Your task to perform on an android device: toggle priority inbox in the gmail app Image 0: 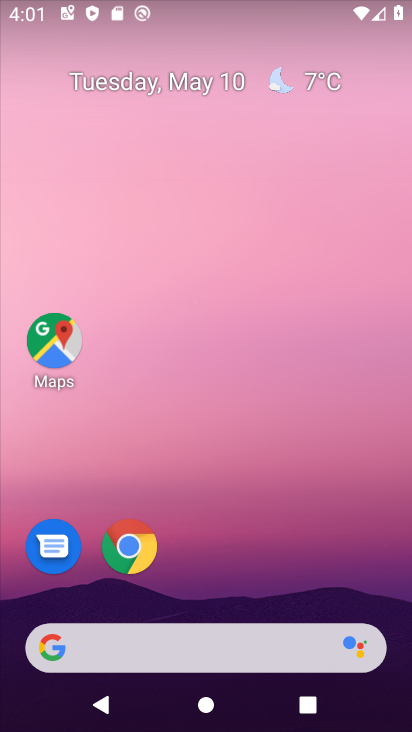
Step 0: drag from (257, 625) to (118, 289)
Your task to perform on an android device: toggle priority inbox in the gmail app Image 1: 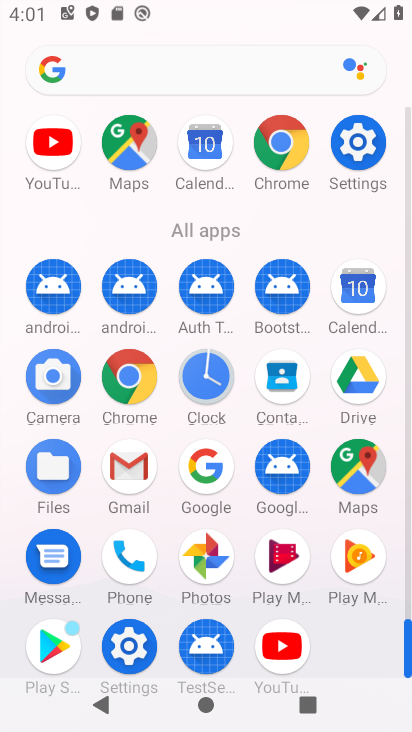
Step 1: click (131, 465)
Your task to perform on an android device: toggle priority inbox in the gmail app Image 2: 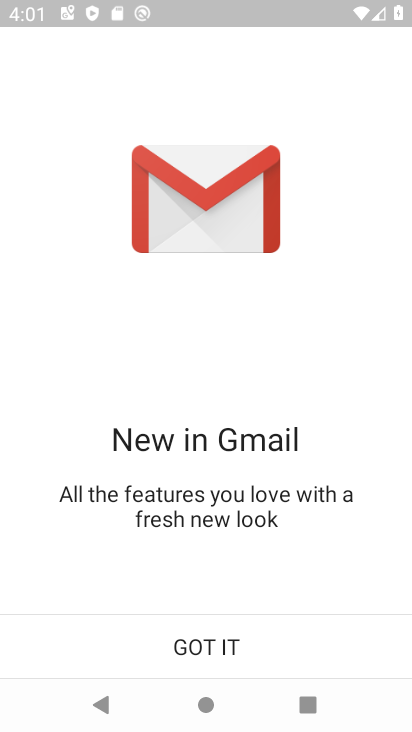
Step 2: click (214, 640)
Your task to perform on an android device: toggle priority inbox in the gmail app Image 3: 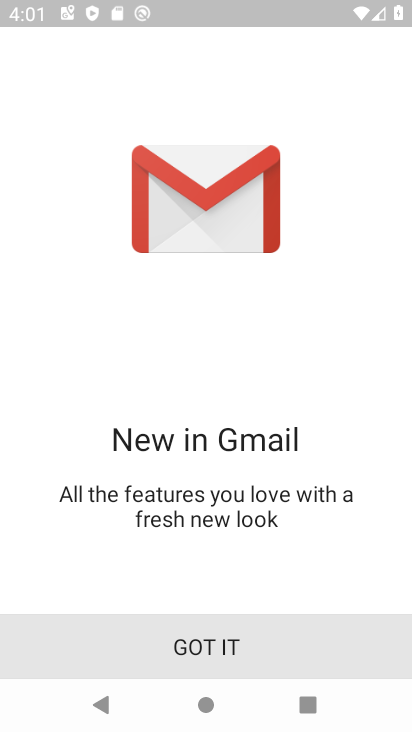
Step 3: click (213, 643)
Your task to perform on an android device: toggle priority inbox in the gmail app Image 4: 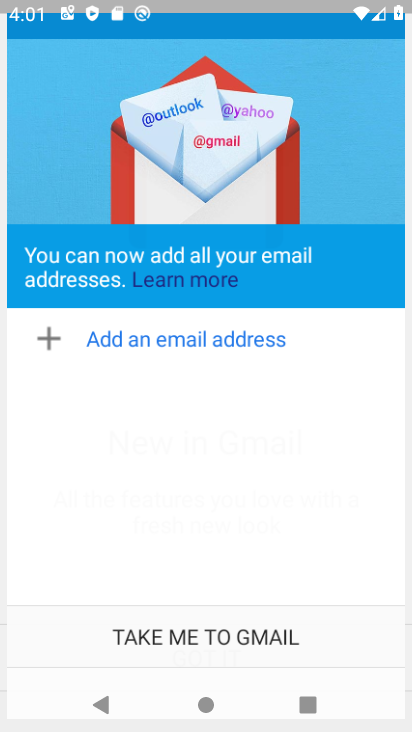
Step 4: click (213, 643)
Your task to perform on an android device: toggle priority inbox in the gmail app Image 5: 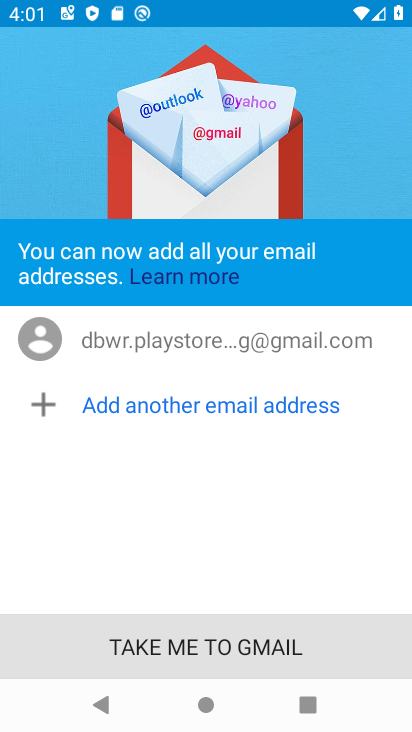
Step 5: click (213, 638)
Your task to perform on an android device: toggle priority inbox in the gmail app Image 6: 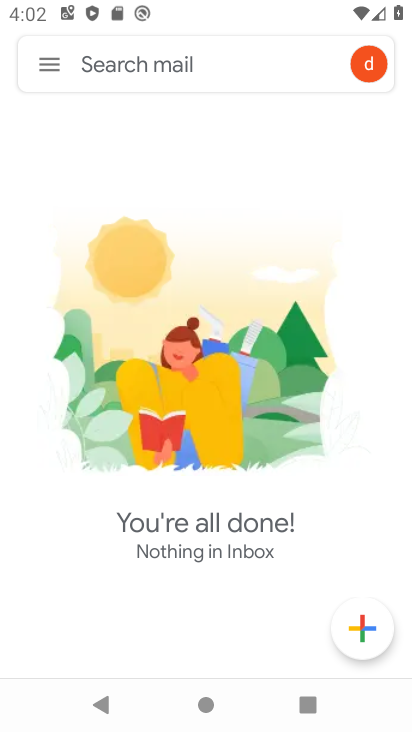
Step 6: click (82, 53)
Your task to perform on an android device: toggle priority inbox in the gmail app Image 7: 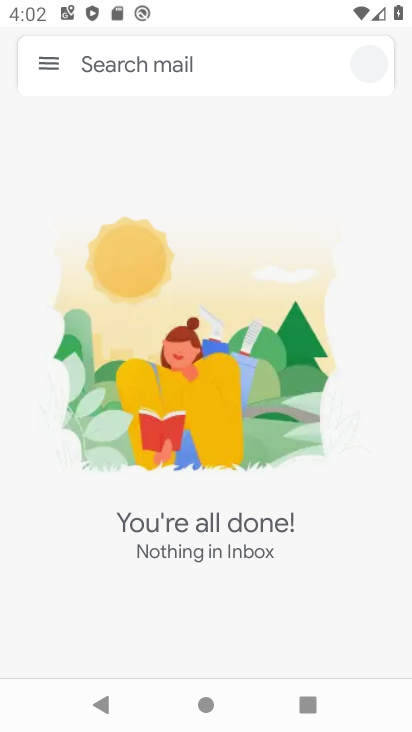
Step 7: click (82, 52)
Your task to perform on an android device: toggle priority inbox in the gmail app Image 8: 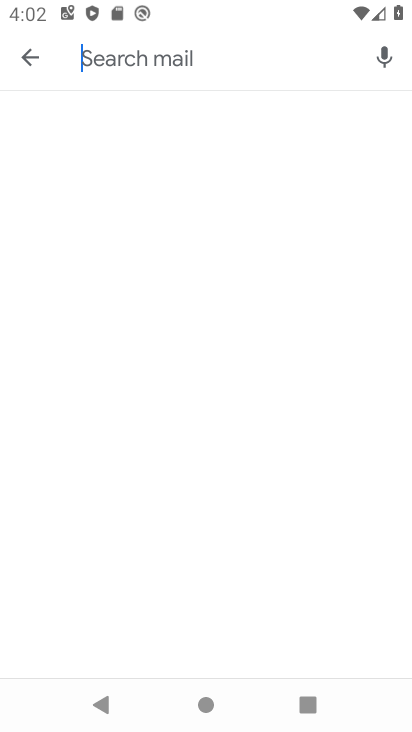
Step 8: click (82, 52)
Your task to perform on an android device: toggle priority inbox in the gmail app Image 9: 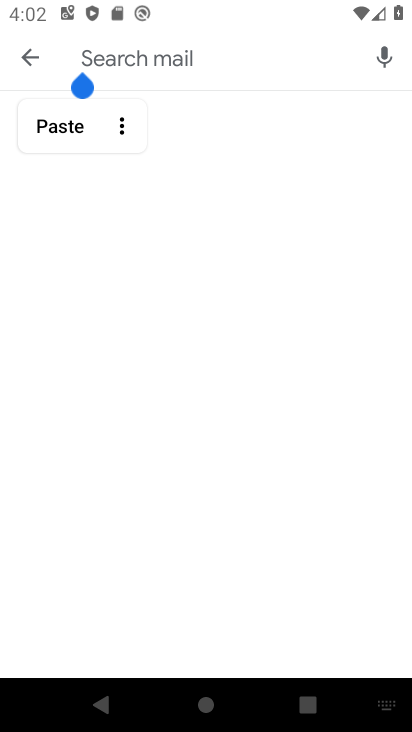
Step 9: click (33, 64)
Your task to perform on an android device: toggle priority inbox in the gmail app Image 10: 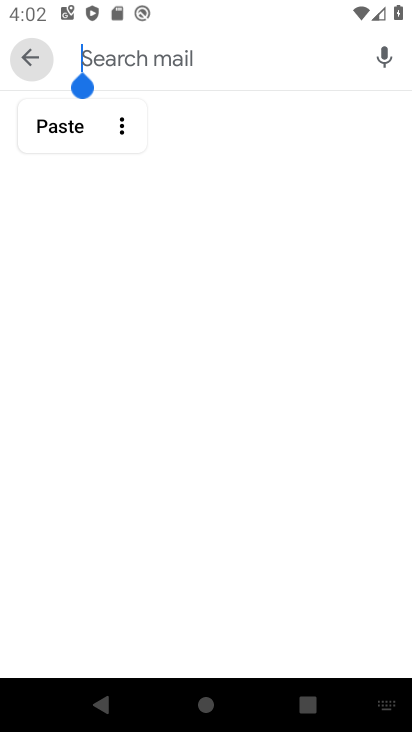
Step 10: click (33, 64)
Your task to perform on an android device: toggle priority inbox in the gmail app Image 11: 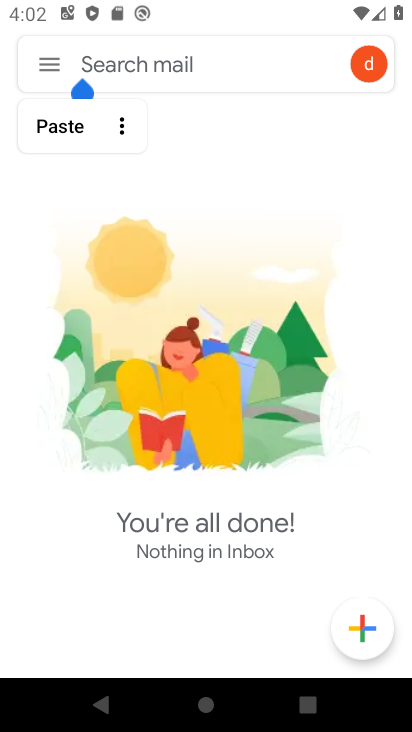
Step 11: click (33, 64)
Your task to perform on an android device: toggle priority inbox in the gmail app Image 12: 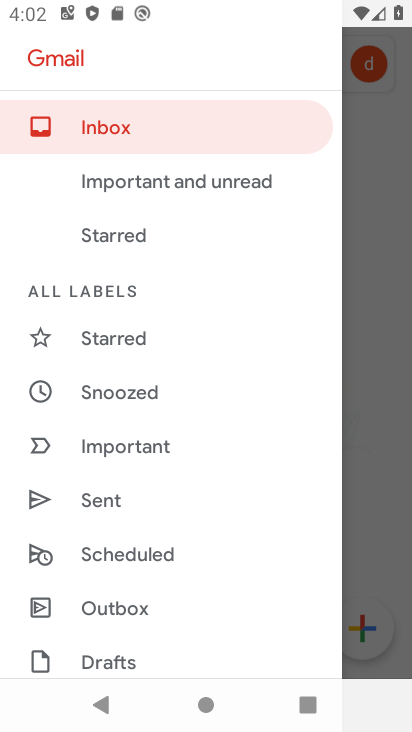
Step 12: drag from (155, 570) to (69, 191)
Your task to perform on an android device: toggle priority inbox in the gmail app Image 13: 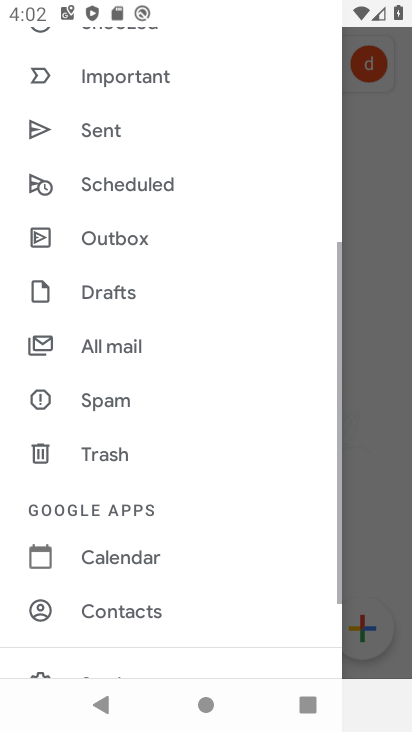
Step 13: drag from (159, 428) to (144, 187)
Your task to perform on an android device: toggle priority inbox in the gmail app Image 14: 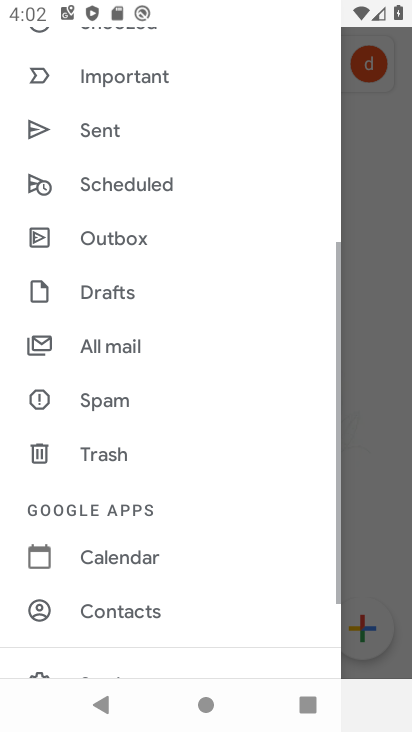
Step 14: drag from (230, 560) to (249, 146)
Your task to perform on an android device: toggle priority inbox in the gmail app Image 15: 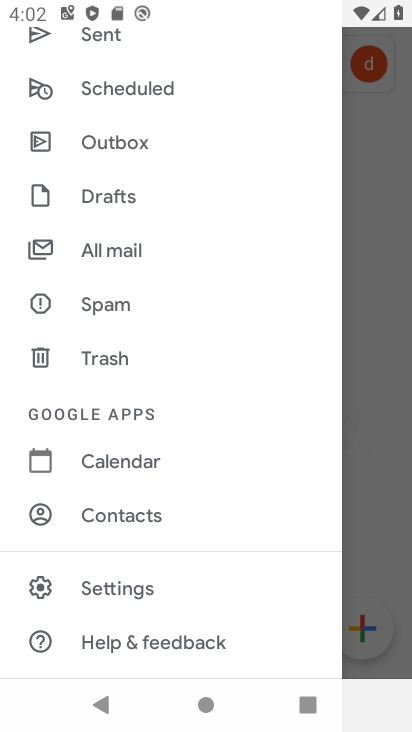
Step 15: click (101, 580)
Your task to perform on an android device: toggle priority inbox in the gmail app Image 16: 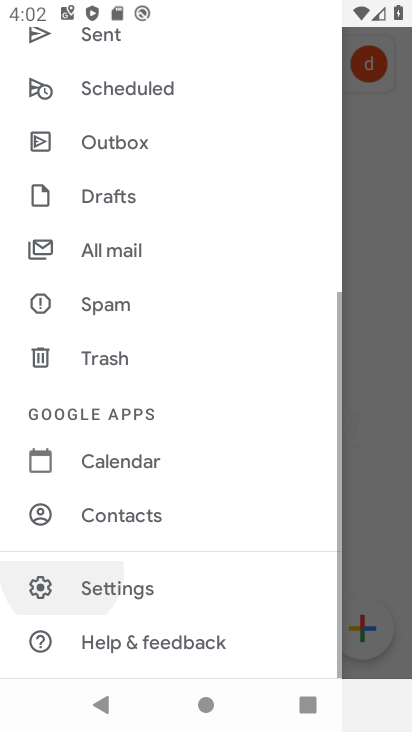
Step 16: click (100, 581)
Your task to perform on an android device: toggle priority inbox in the gmail app Image 17: 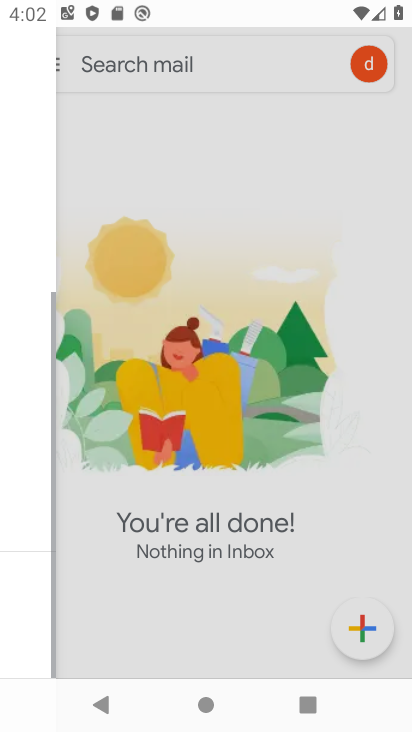
Step 17: click (101, 581)
Your task to perform on an android device: toggle priority inbox in the gmail app Image 18: 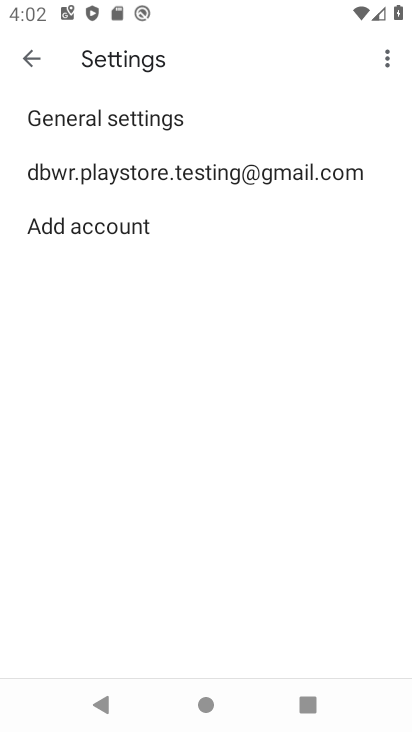
Step 18: click (140, 165)
Your task to perform on an android device: toggle priority inbox in the gmail app Image 19: 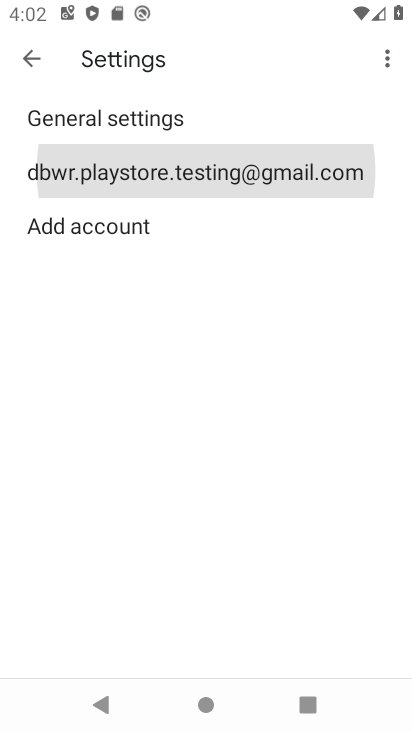
Step 19: click (140, 165)
Your task to perform on an android device: toggle priority inbox in the gmail app Image 20: 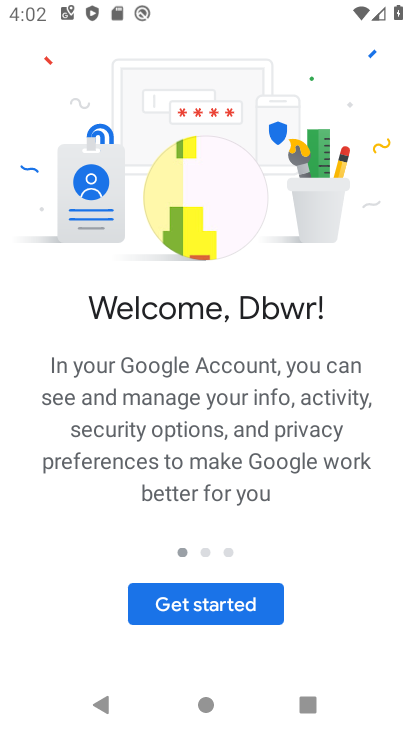
Step 20: click (212, 608)
Your task to perform on an android device: toggle priority inbox in the gmail app Image 21: 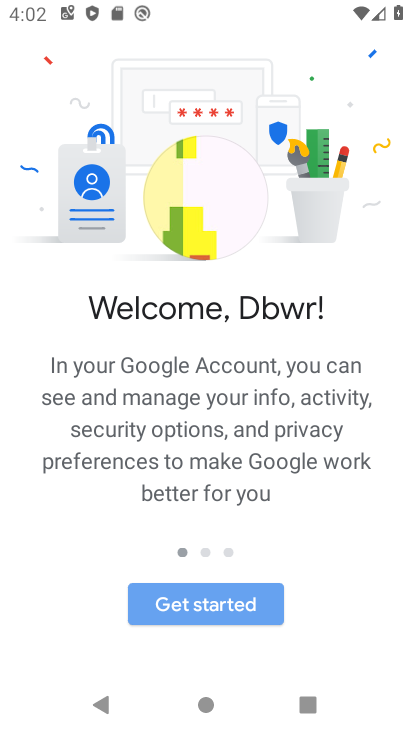
Step 21: click (207, 606)
Your task to perform on an android device: toggle priority inbox in the gmail app Image 22: 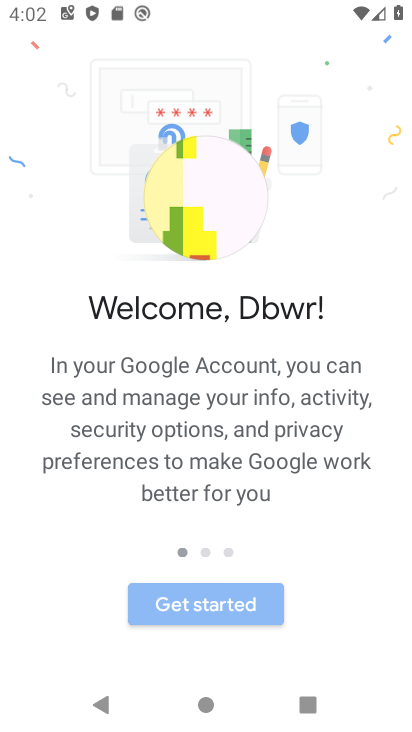
Step 22: click (207, 606)
Your task to perform on an android device: toggle priority inbox in the gmail app Image 23: 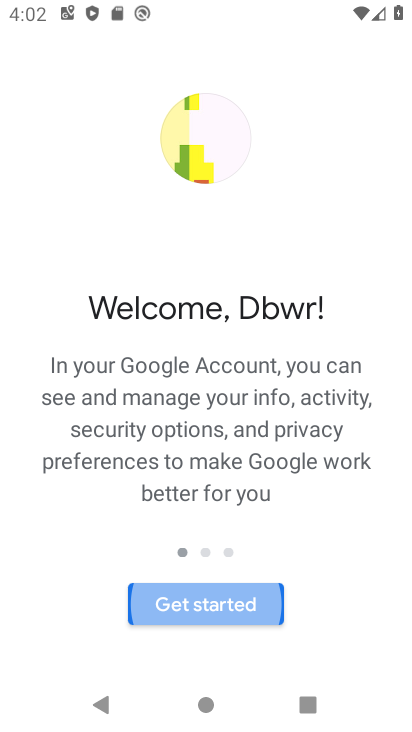
Step 23: click (206, 613)
Your task to perform on an android device: toggle priority inbox in the gmail app Image 24: 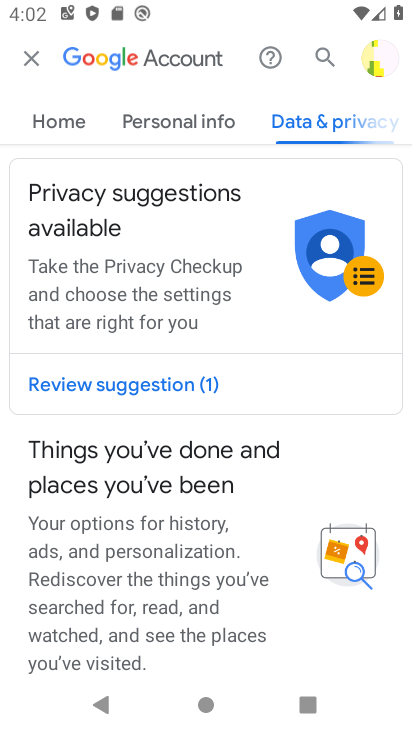
Step 24: drag from (190, 523) to (40, 125)
Your task to perform on an android device: toggle priority inbox in the gmail app Image 25: 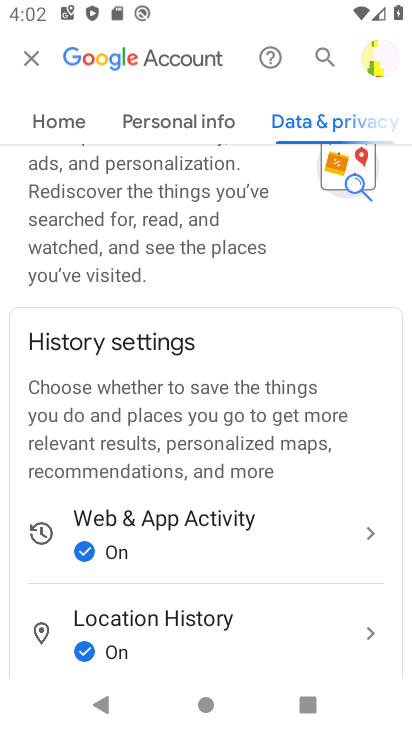
Step 25: click (28, 59)
Your task to perform on an android device: toggle priority inbox in the gmail app Image 26: 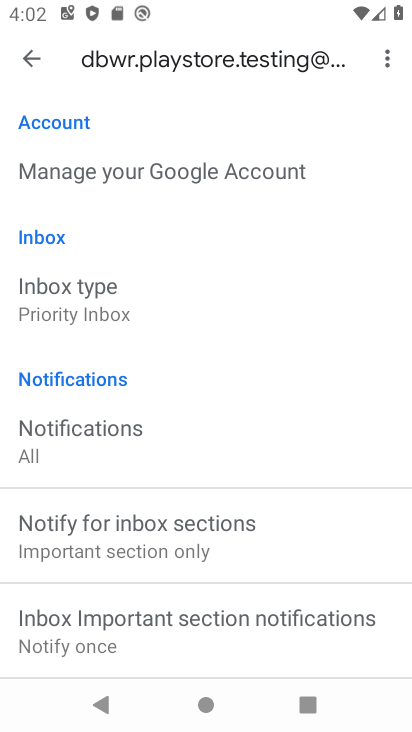
Step 26: click (55, 308)
Your task to perform on an android device: toggle priority inbox in the gmail app Image 27: 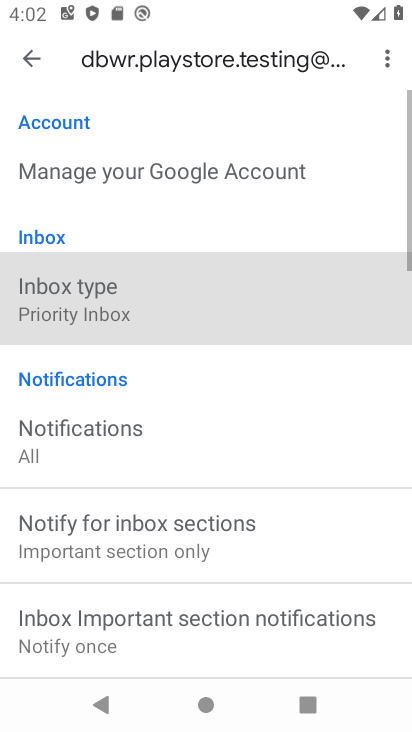
Step 27: click (55, 308)
Your task to perform on an android device: toggle priority inbox in the gmail app Image 28: 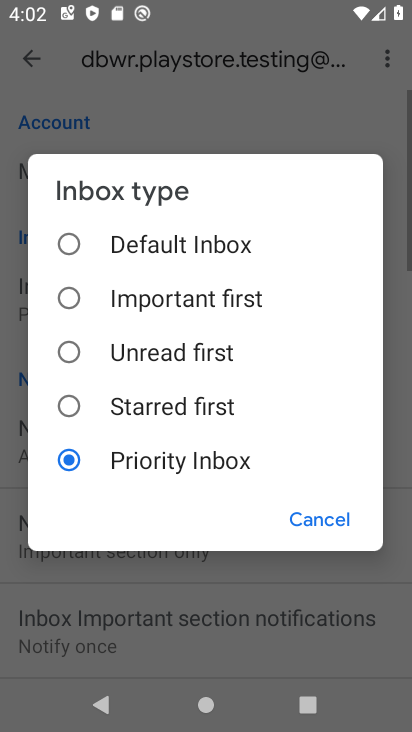
Step 28: click (56, 309)
Your task to perform on an android device: toggle priority inbox in the gmail app Image 29: 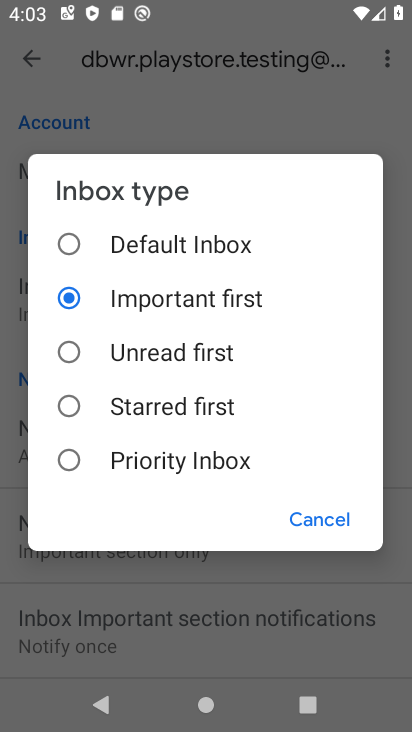
Step 29: click (72, 464)
Your task to perform on an android device: toggle priority inbox in the gmail app Image 30: 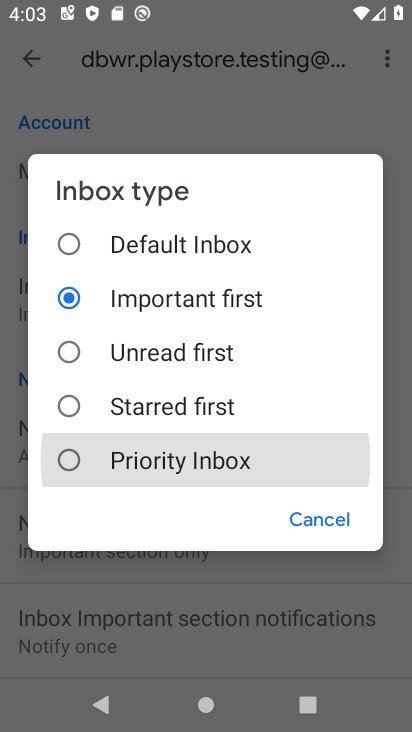
Step 30: click (69, 459)
Your task to perform on an android device: toggle priority inbox in the gmail app Image 31: 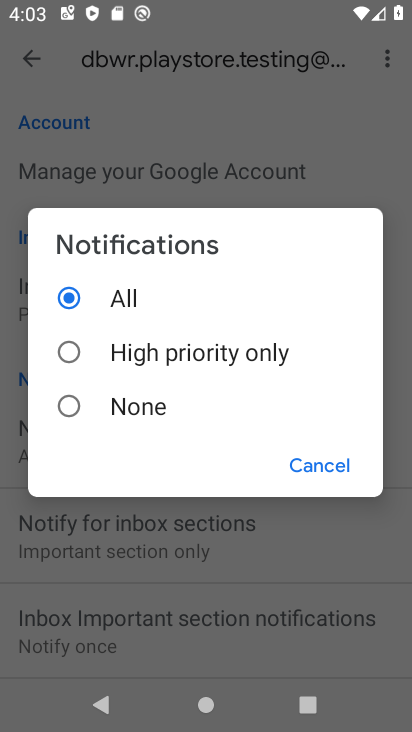
Step 31: click (321, 458)
Your task to perform on an android device: toggle priority inbox in the gmail app Image 32: 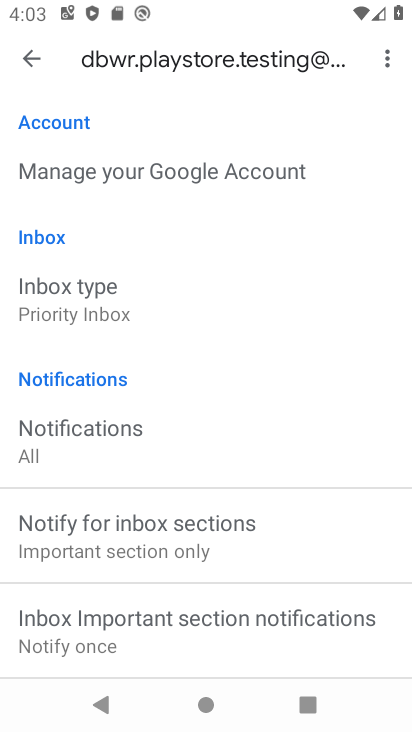
Step 32: task complete